Your task to perform on an android device: add a contact Image 0: 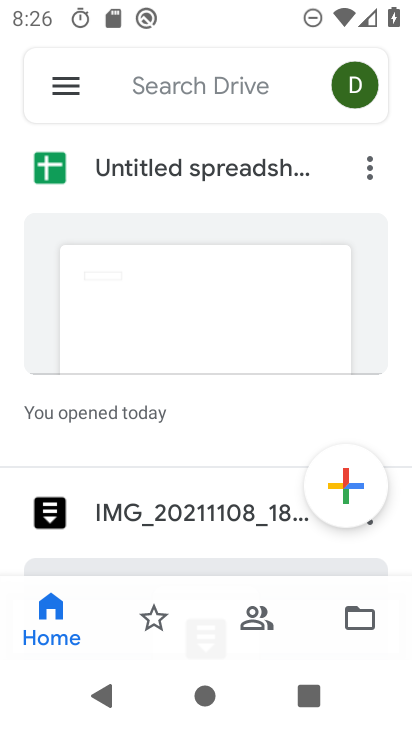
Step 0: press home button
Your task to perform on an android device: add a contact Image 1: 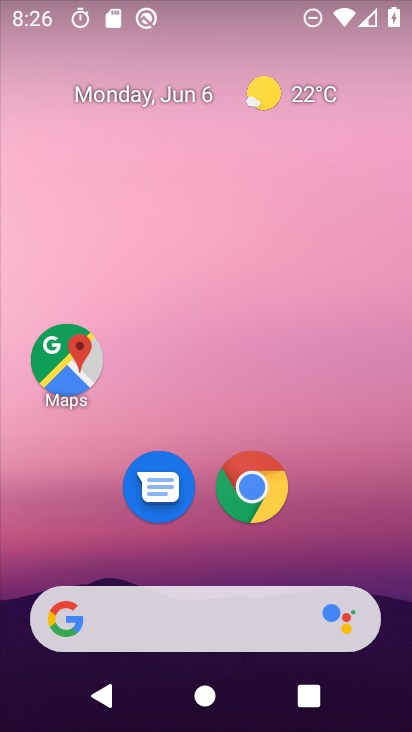
Step 1: drag from (394, 622) to (218, 46)
Your task to perform on an android device: add a contact Image 2: 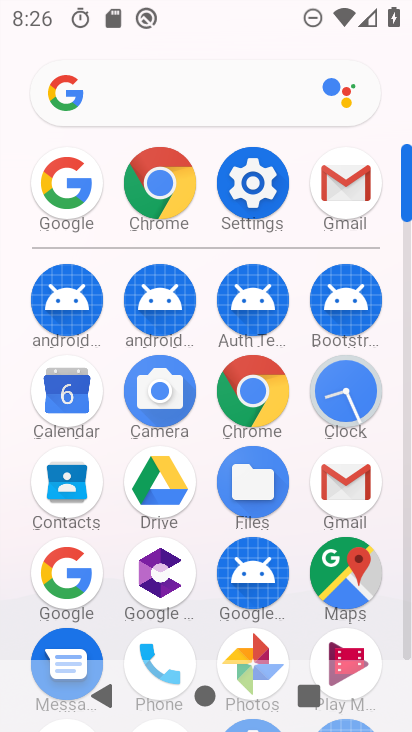
Step 2: click (39, 483)
Your task to perform on an android device: add a contact Image 3: 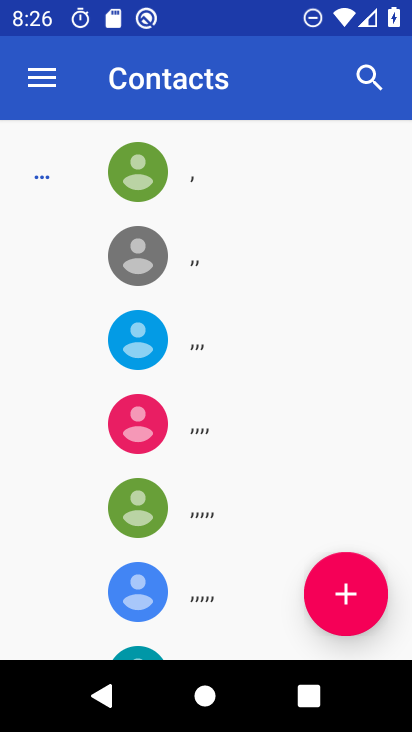
Step 3: click (366, 611)
Your task to perform on an android device: add a contact Image 4: 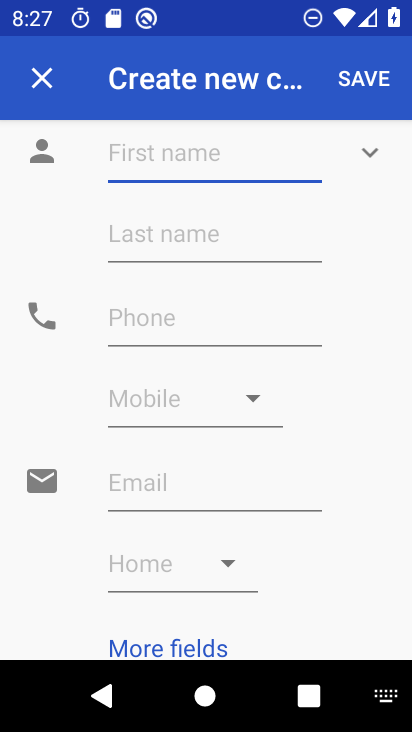
Step 4: type "erish"
Your task to perform on an android device: add a contact Image 5: 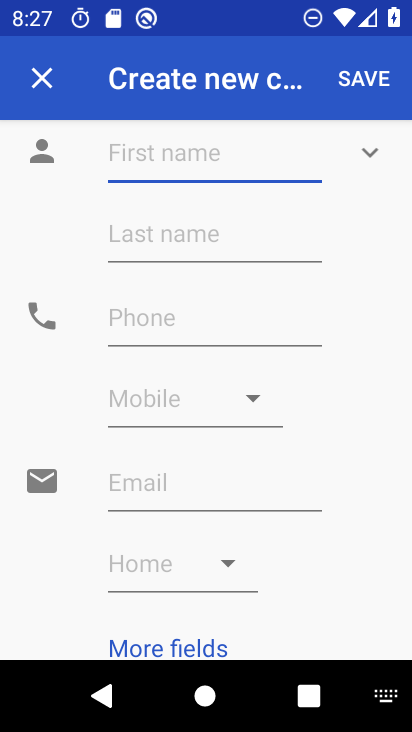
Step 5: click (369, 71)
Your task to perform on an android device: add a contact Image 6: 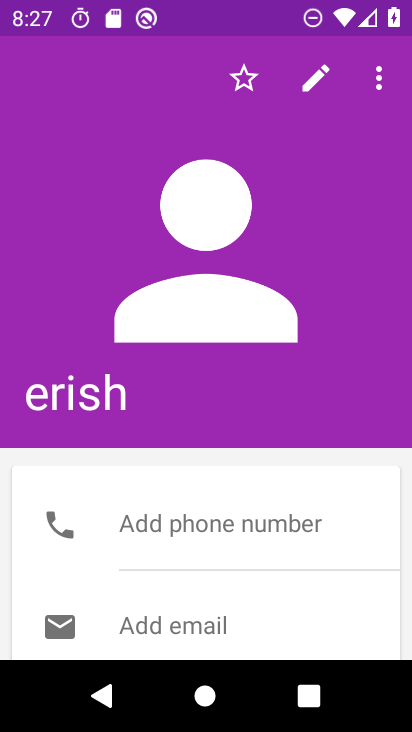
Step 6: task complete